Your task to perform on an android device: Open the Play Movies app and select the watchlist tab. Image 0: 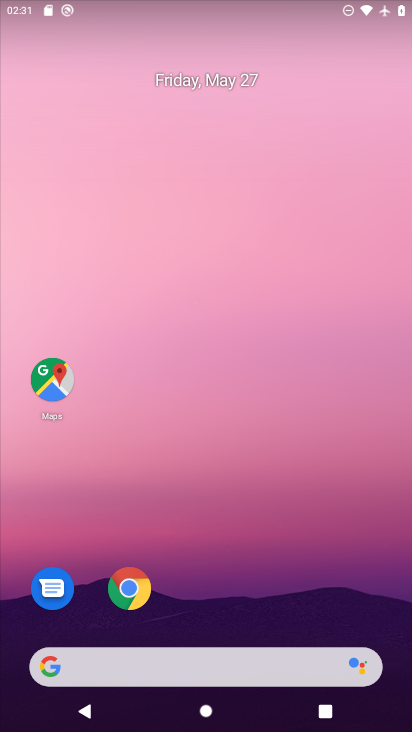
Step 0: drag from (394, 585) to (308, 11)
Your task to perform on an android device: Open the Play Movies app and select the watchlist tab. Image 1: 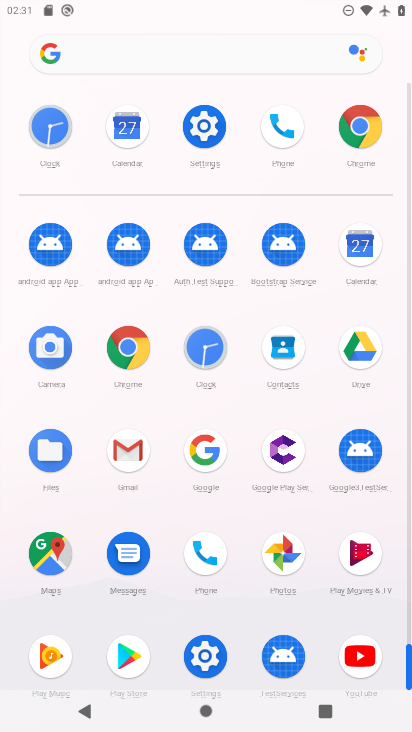
Step 1: click (409, 629)
Your task to perform on an android device: Open the Play Movies app and select the watchlist tab. Image 2: 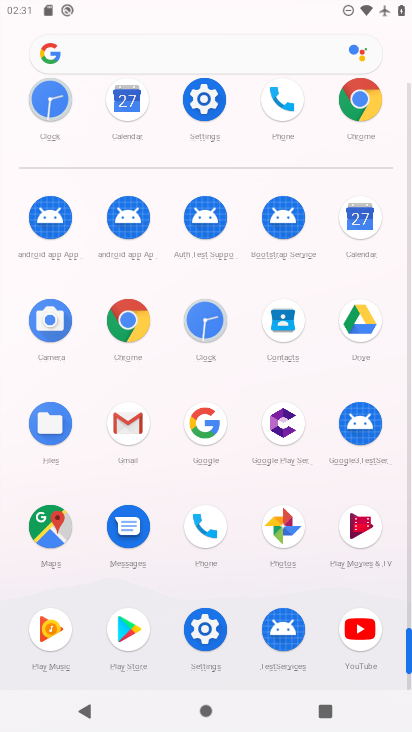
Step 2: click (356, 524)
Your task to perform on an android device: Open the Play Movies app and select the watchlist tab. Image 3: 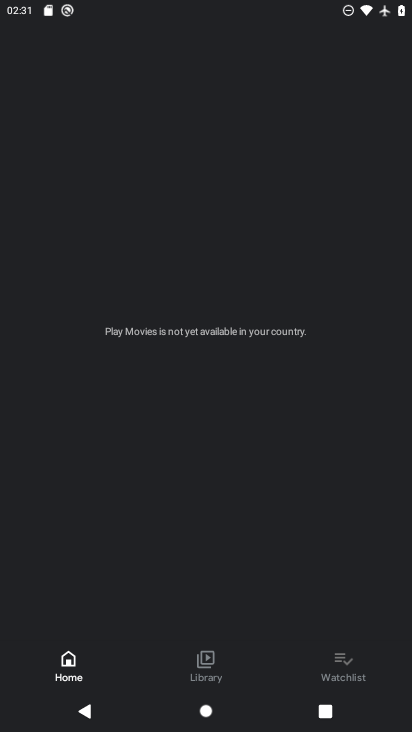
Step 3: click (356, 676)
Your task to perform on an android device: Open the Play Movies app and select the watchlist tab. Image 4: 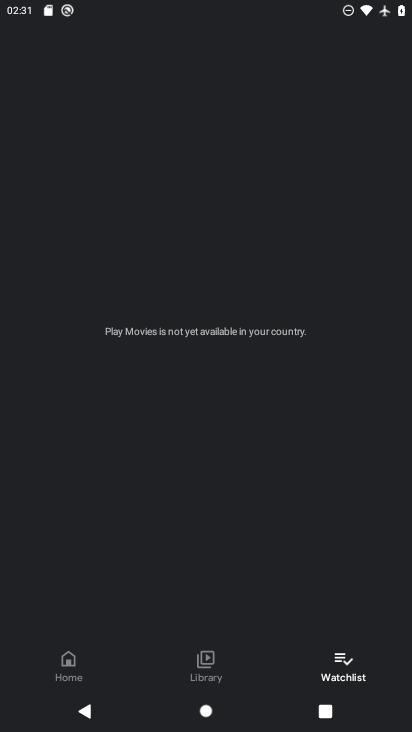
Step 4: task complete